Your task to perform on an android device: What's the news about the US economy? Image 0: 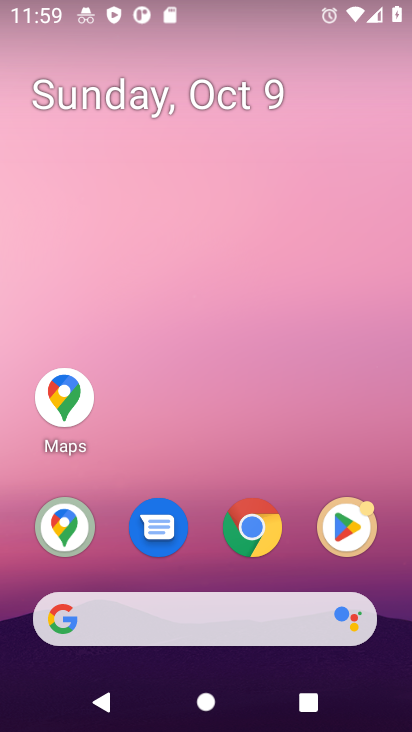
Step 0: click (252, 516)
Your task to perform on an android device: What's the news about the US economy? Image 1: 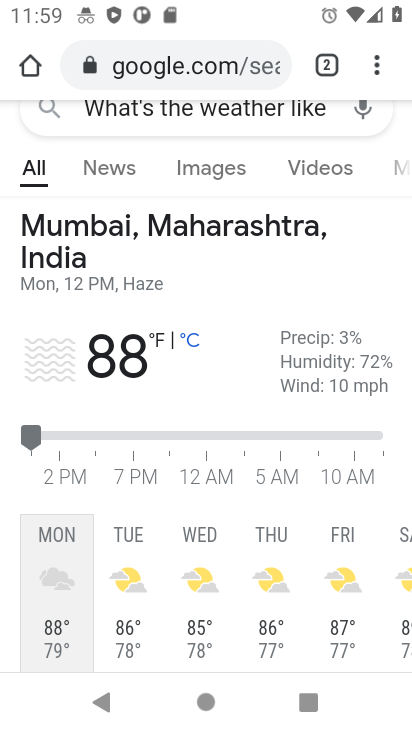
Step 1: click (190, 63)
Your task to perform on an android device: What's the news about the US economy? Image 2: 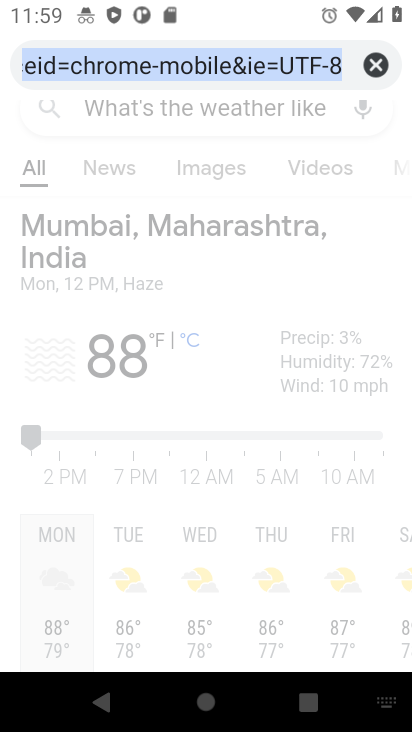
Step 2: type "What's the news about the US economy?"
Your task to perform on an android device: What's the news about the US economy? Image 3: 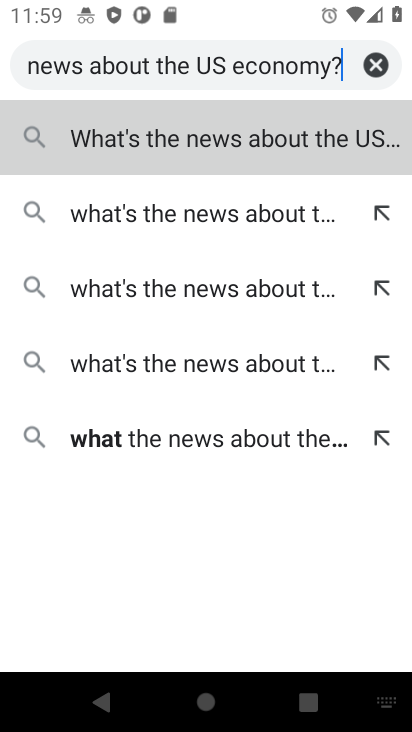
Step 3: click (249, 150)
Your task to perform on an android device: What's the news about the US economy? Image 4: 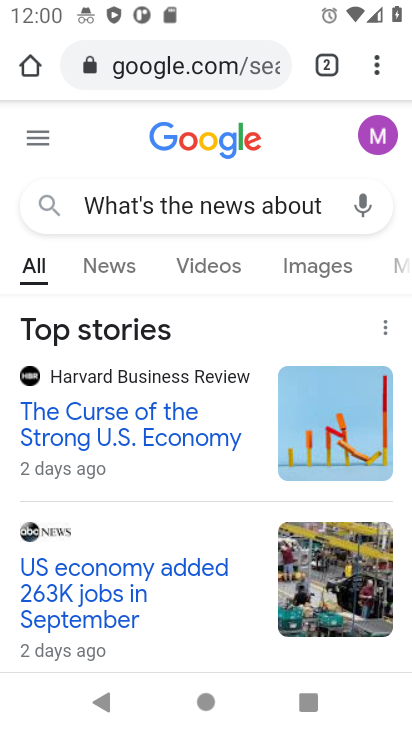
Step 4: task complete